Your task to perform on an android device: add a contact in the contacts app Image 0: 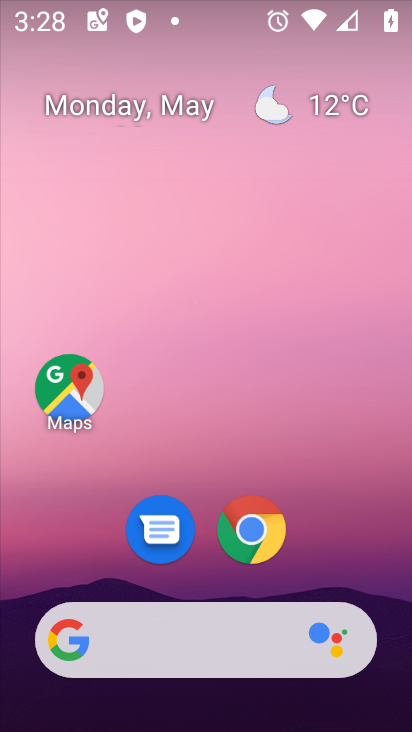
Step 0: drag from (307, 580) to (258, 181)
Your task to perform on an android device: add a contact in the contacts app Image 1: 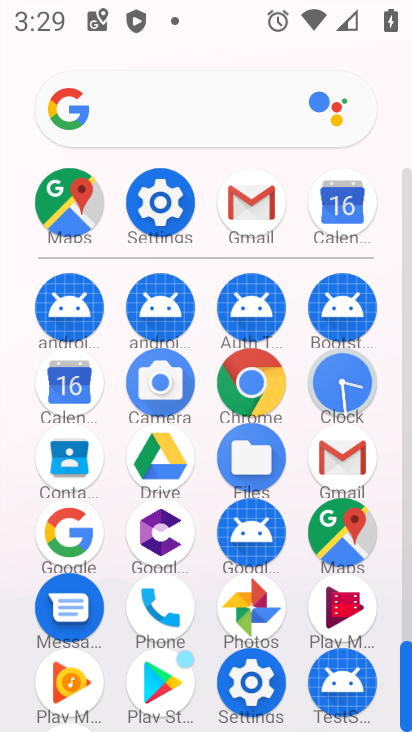
Step 1: click (54, 457)
Your task to perform on an android device: add a contact in the contacts app Image 2: 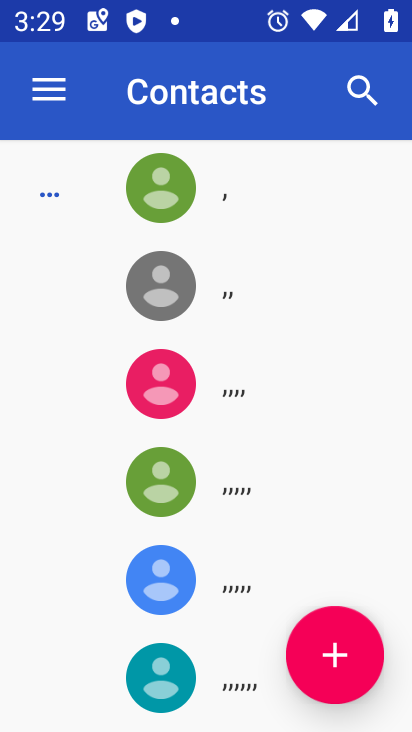
Step 2: click (328, 655)
Your task to perform on an android device: add a contact in the contacts app Image 3: 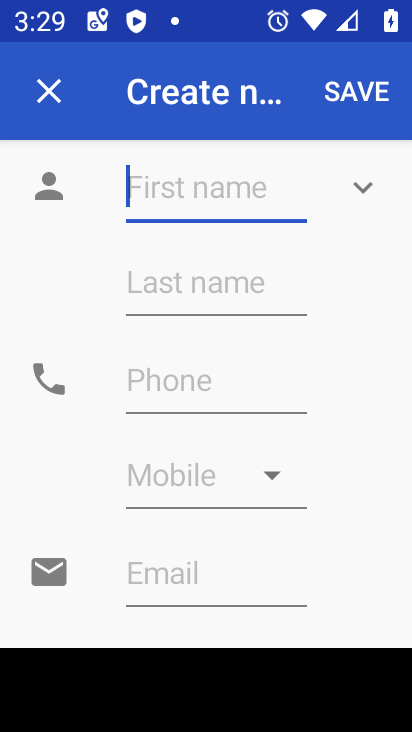
Step 3: type "aserfgyujkop"
Your task to perform on an android device: add a contact in the contacts app Image 4: 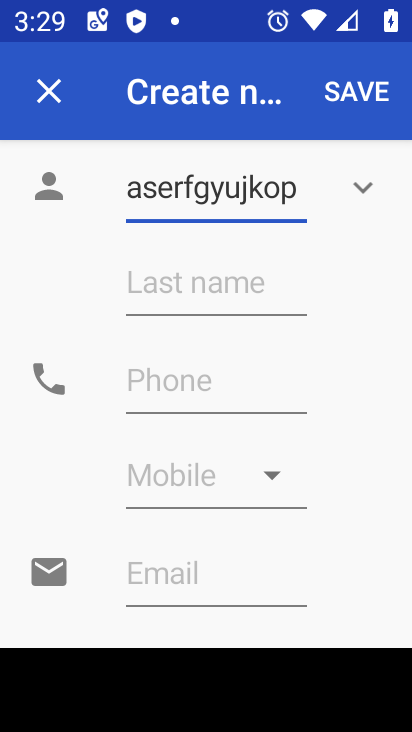
Step 4: click (185, 392)
Your task to perform on an android device: add a contact in the contacts app Image 5: 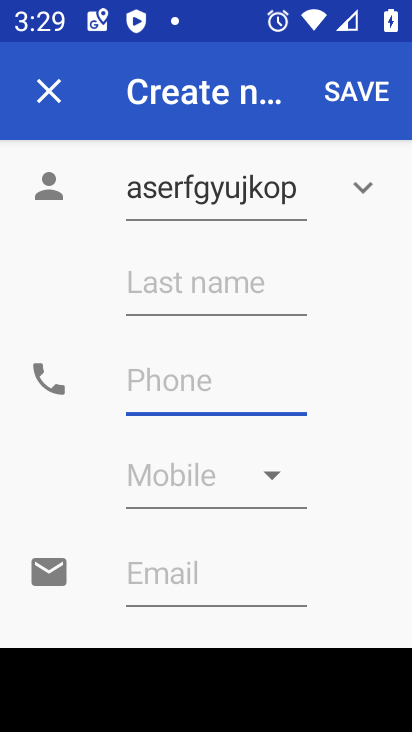
Step 5: type "9876543210"
Your task to perform on an android device: add a contact in the contacts app Image 6: 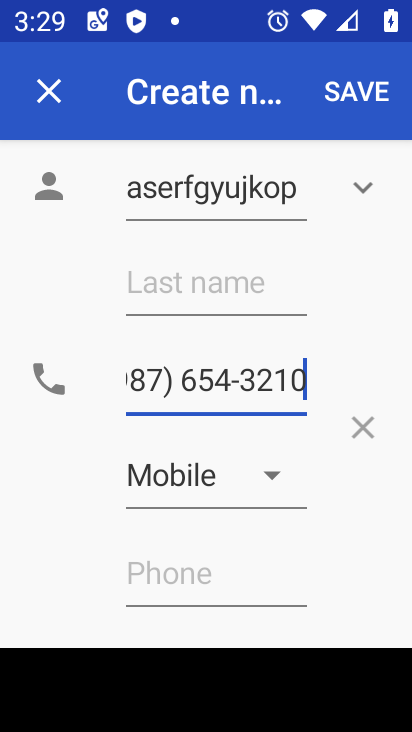
Step 6: click (359, 104)
Your task to perform on an android device: add a contact in the contacts app Image 7: 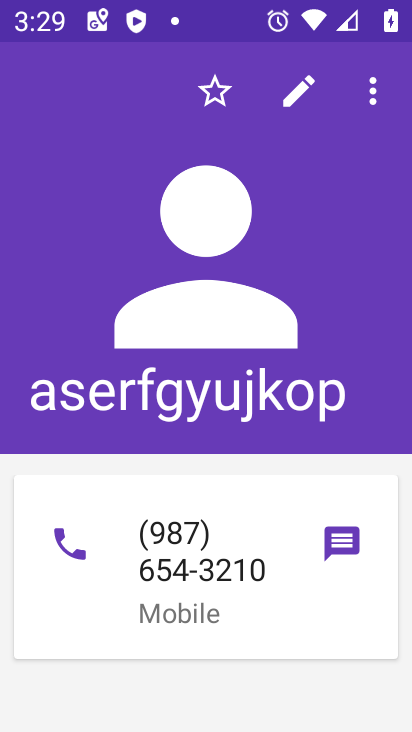
Step 7: task complete